Your task to perform on an android device: add a contact in the contacts app Image 0: 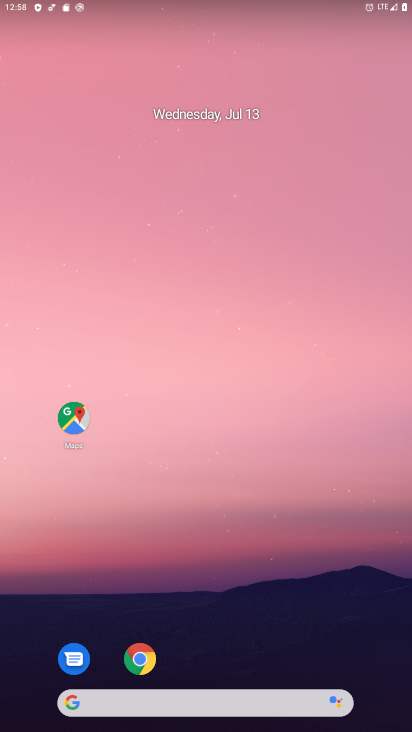
Step 0: drag from (34, 709) to (320, 242)
Your task to perform on an android device: add a contact in the contacts app Image 1: 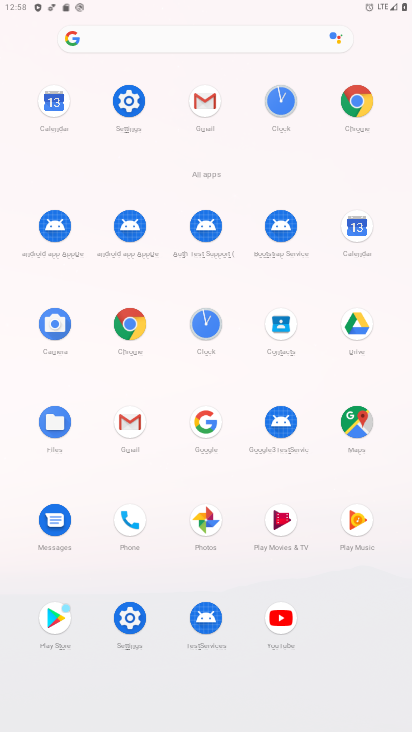
Step 1: click (282, 326)
Your task to perform on an android device: add a contact in the contacts app Image 2: 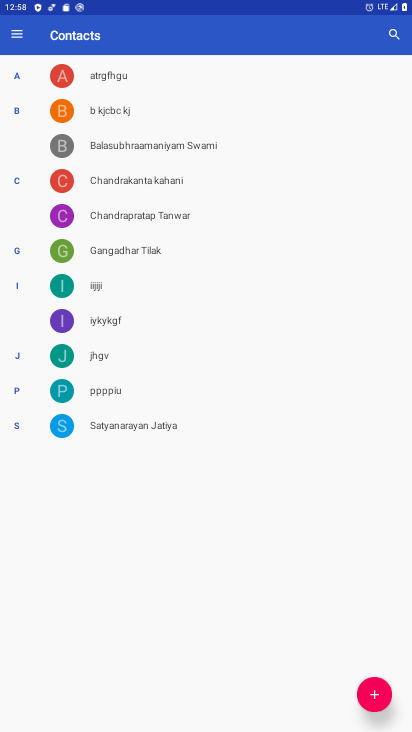
Step 2: click (373, 685)
Your task to perform on an android device: add a contact in the contacts app Image 3: 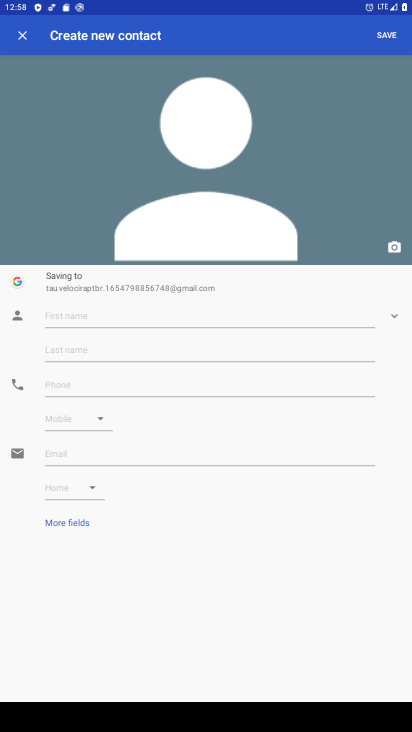
Step 3: click (87, 315)
Your task to perform on an android device: add a contact in the contacts app Image 4: 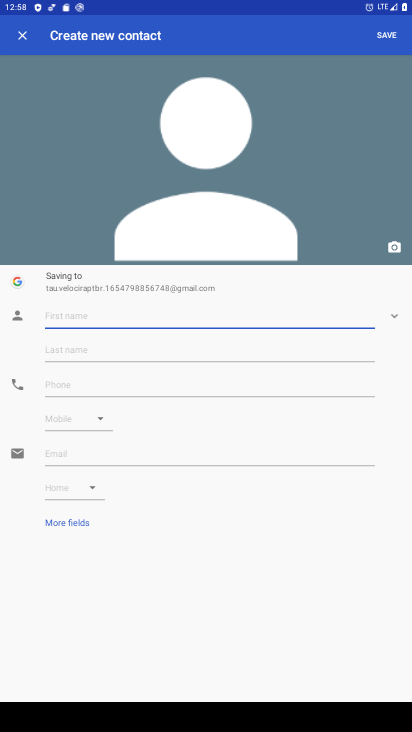
Step 4: type "bgrghy"
Your task to perform on an android device: add a contact in the contacts app Image 5: 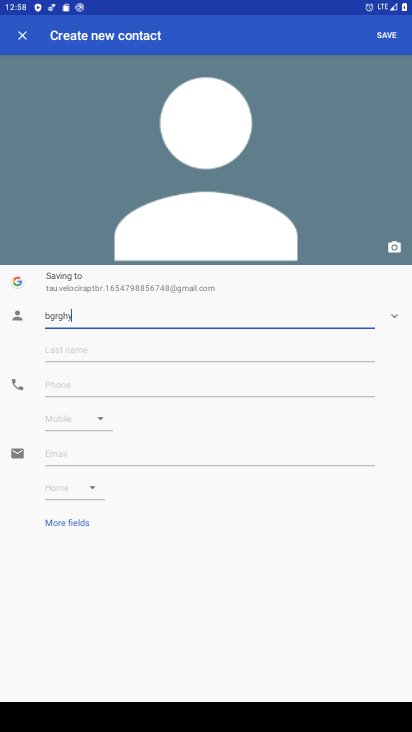
Step 5: type ""
Your task to perform on an android device: add a contact in the contacts app Image 6: 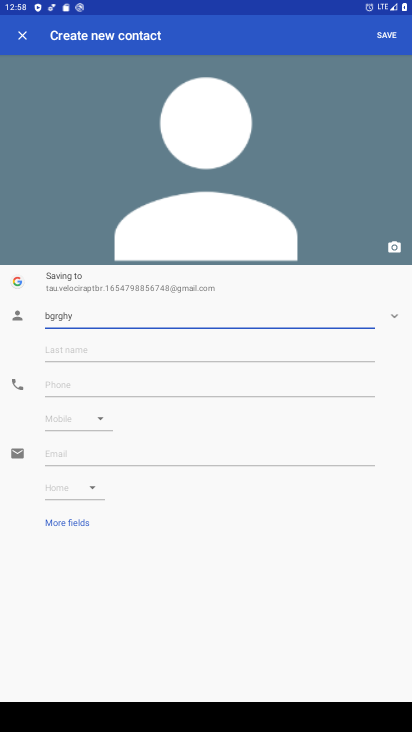
Step 6: click (380, 30)
Your task to perform on an android device: add a contact in the contacts app Image 7: 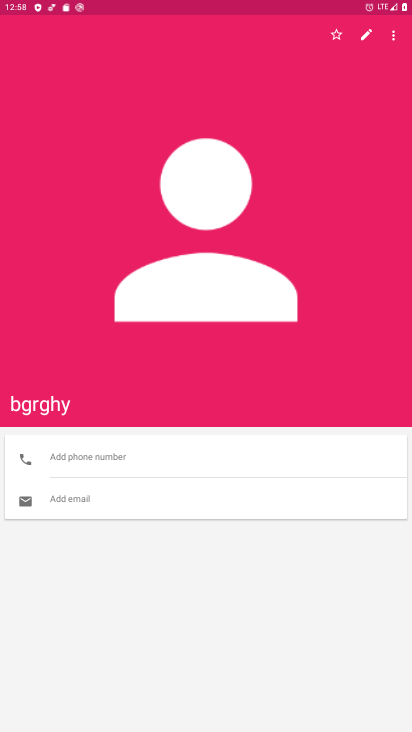
Step 7: task complete